Your task to perform on an android device: change the upload size in google photos Image 0: 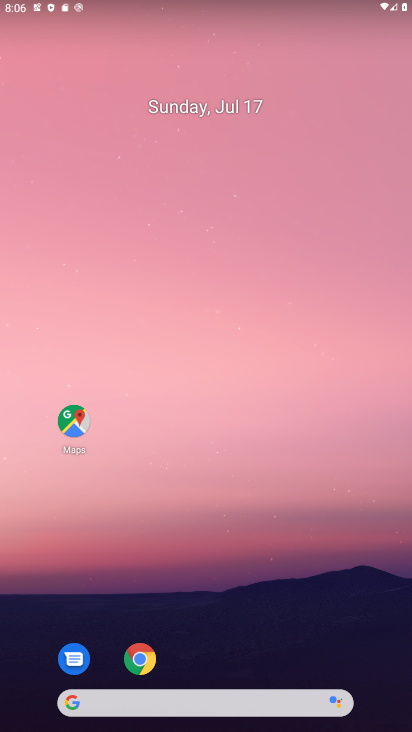
Step 0: drag from (225, 659) to (202, 196)
Your task to perform on an android device: change the upload size in google photos Image 1: 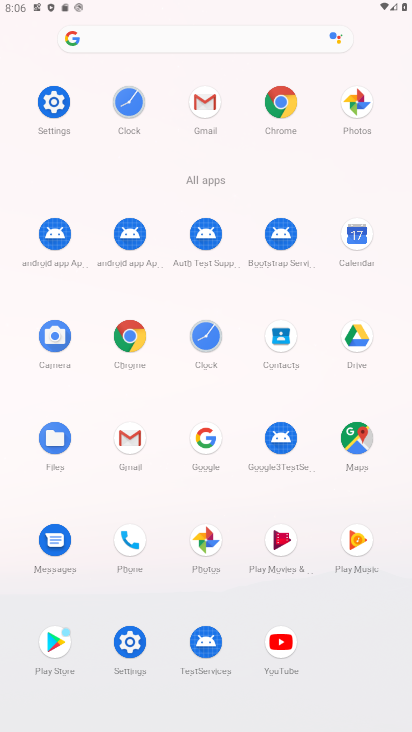
Step 1: click (214, 548)
Your task to perform on an android device: change the upload size in google photos Image 2: 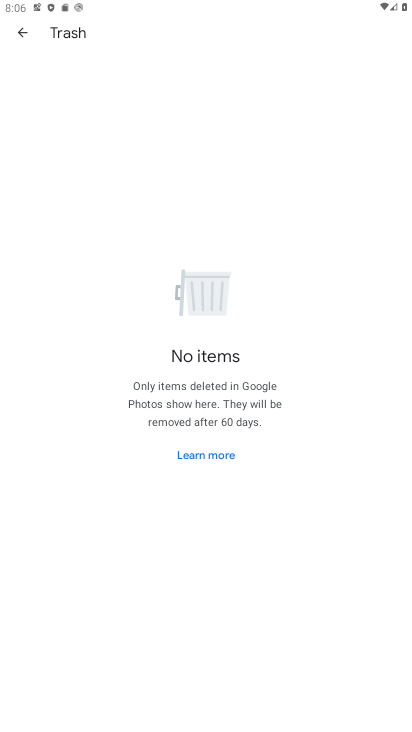
Step 2: click (24, 33)
Your task to perform on an android device: change the upload size in google photos Image 3: 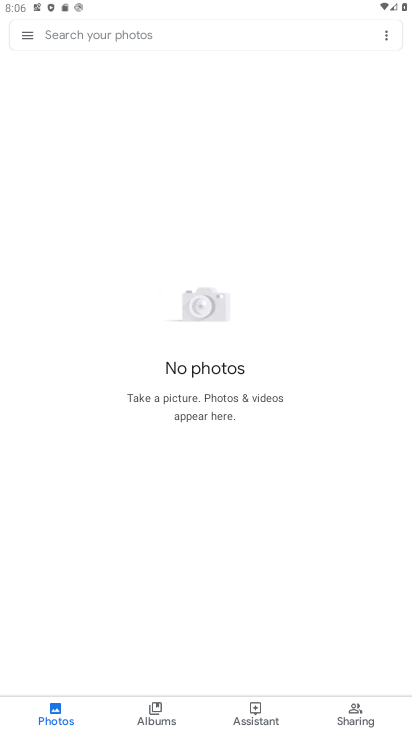
Step 3: click (24, 33)
Your task to perform on an android device: change the upload size in google photos Image 4: 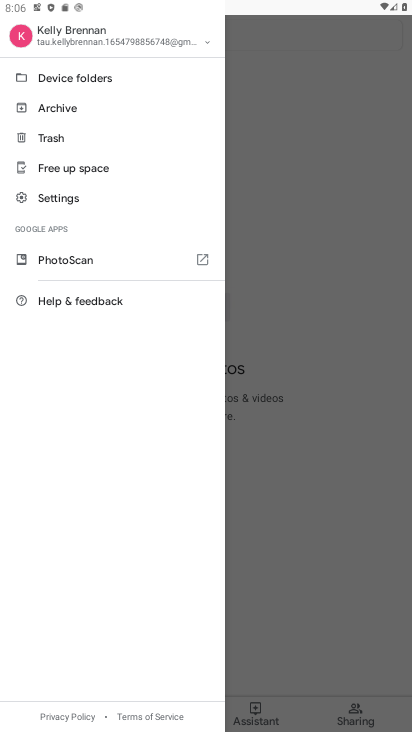
Step 4: click (46, 197)
Your task to perform on an android device: change the upload size in google photos Image 5: 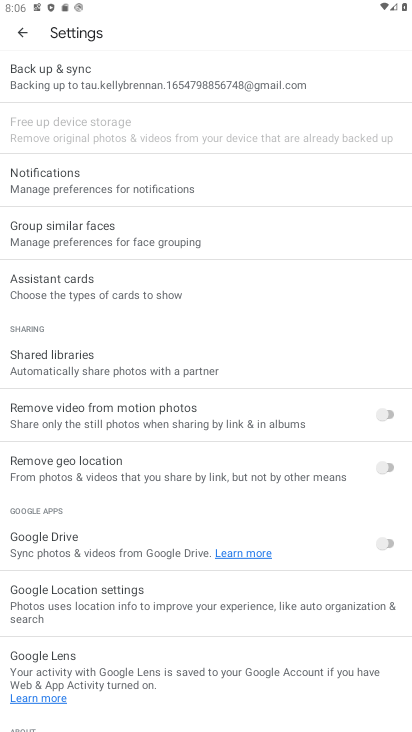
Step 5: click (118, 81)
Your task to perform on an android device: change the upload size in google photos Image 6: 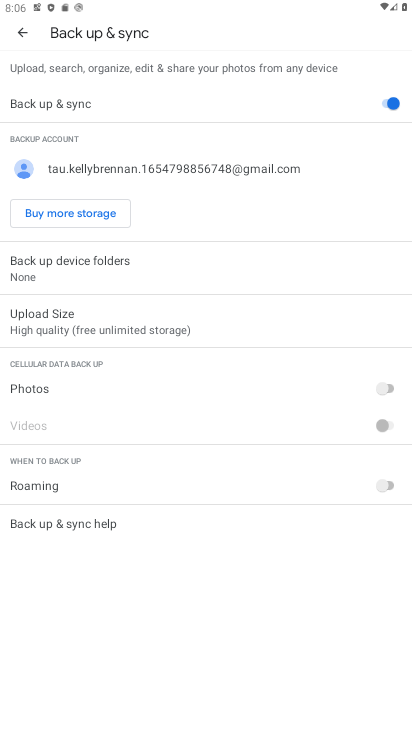
Step 6: click (98, 251)
Your task to perform on an android device: change the upload size in google photos Image 7: 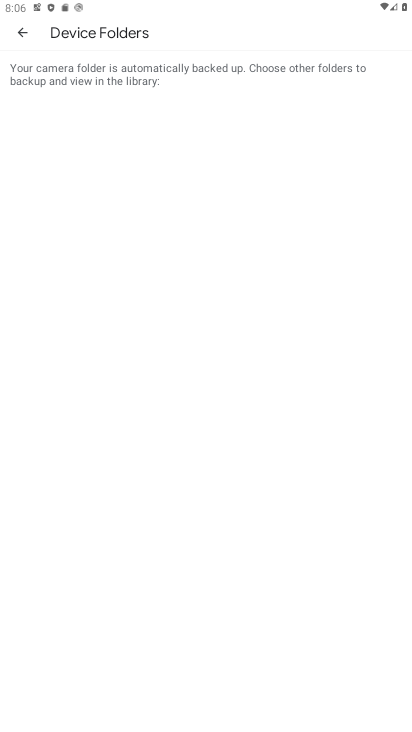
Step 7: click (25, 26)
Your task to perform on an android device: change the upload size in google photos Image 8: 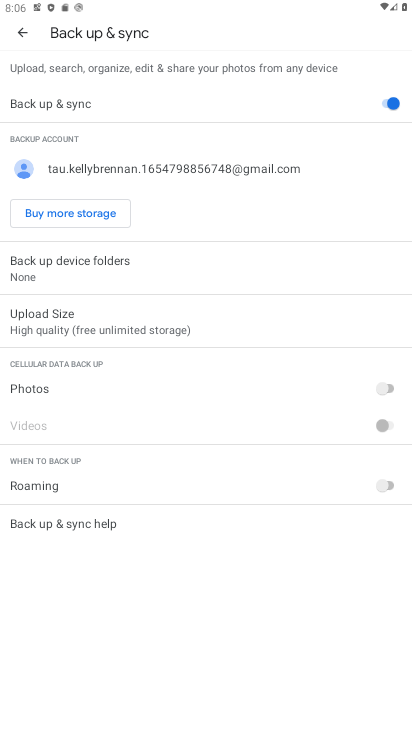
Step 8: click (106, 324)
Your task to perform on an android device: change the upload size in google photos Image 9: 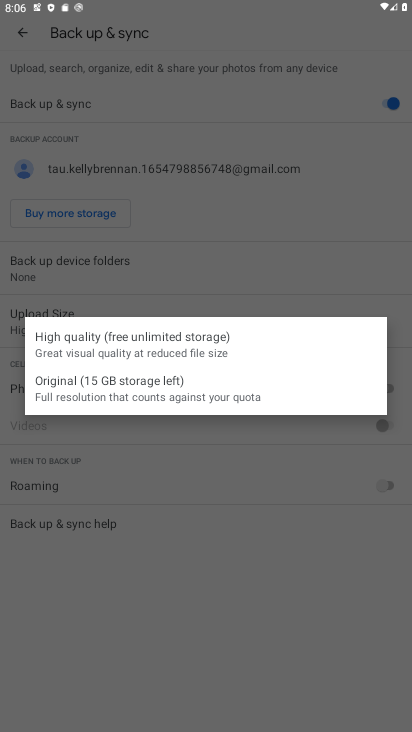
Step 9: click (116, 382)
Your task to perform on an android device: change the upload size in google photos Image 10: 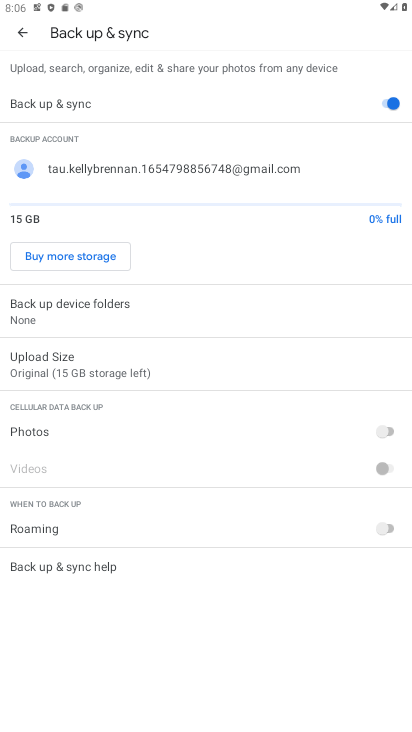
Step 10: task complete